Your task to perform on an android device: check battery use Image 0: 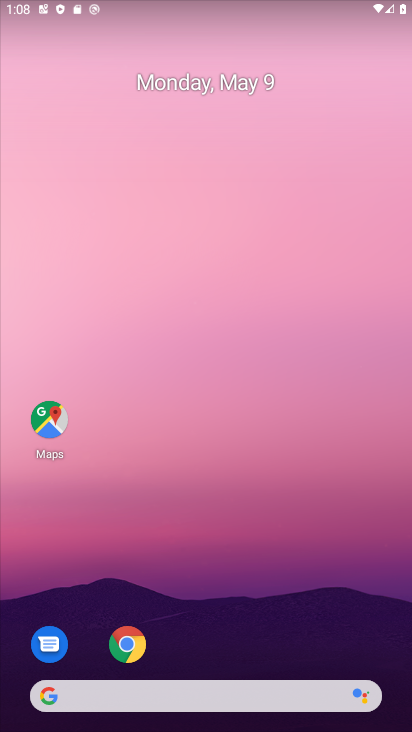
Step 0: drag from (229, 623) to (201, 119)
Your task to perform on an android device: check battery use Image 1: 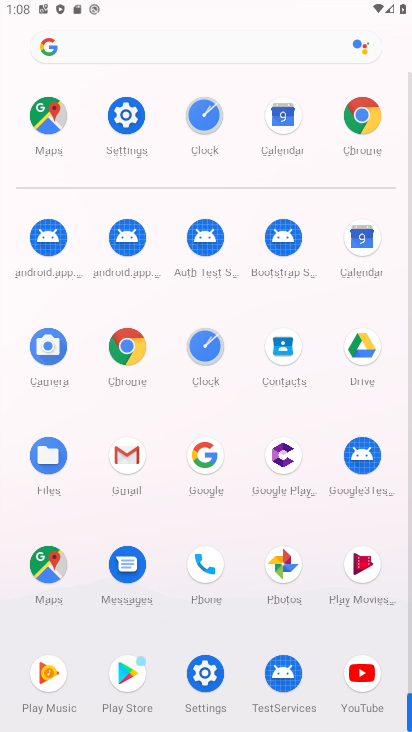
Step 1: click (206, 658)
Your task to perform on an android device: check battery use Image 2: 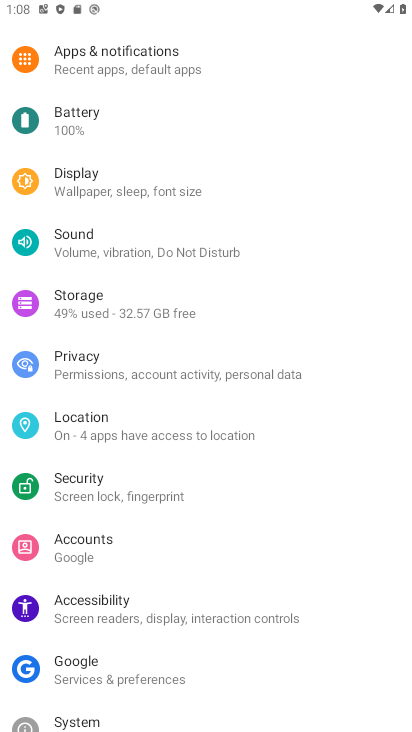
Step 2: click (9, 144)
Your task to perform on an android device: check battery use Image 3: 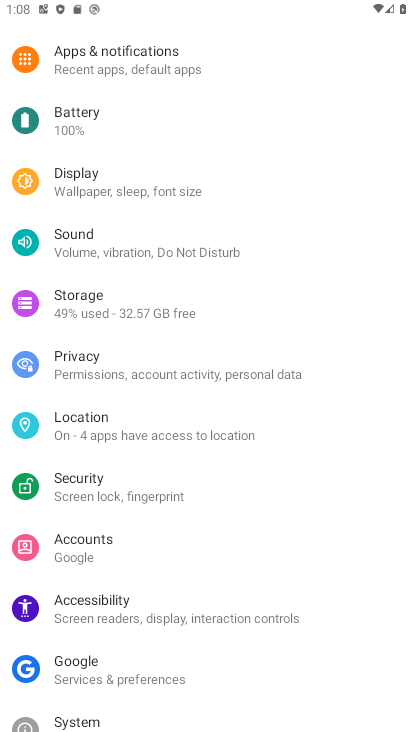
Step 3: click (66, 133)
Your task to perform on an android device: check battery use Image 4: 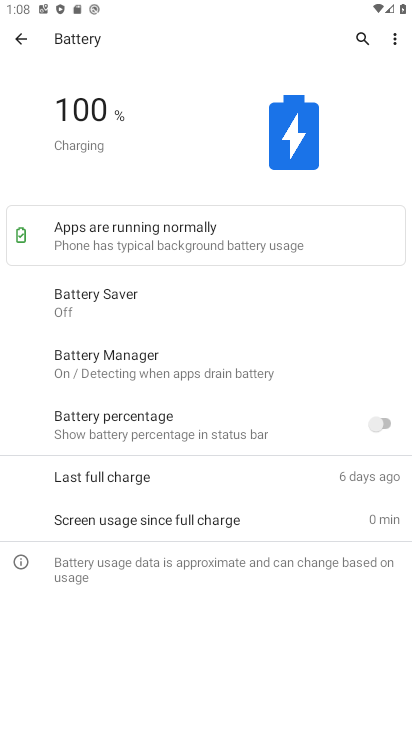
Step 4: task complete